Your task to perform on an android device: check data usage Image 0: 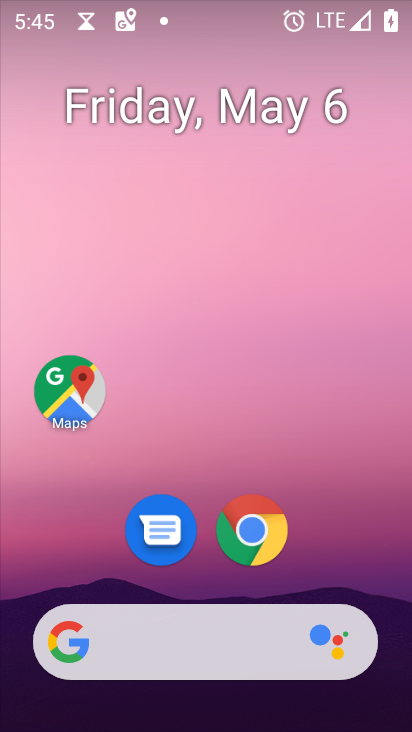
Step 0: drag from (309, 415) to (240, 82)
Your task to perform on an android device: check data usage Image 1: 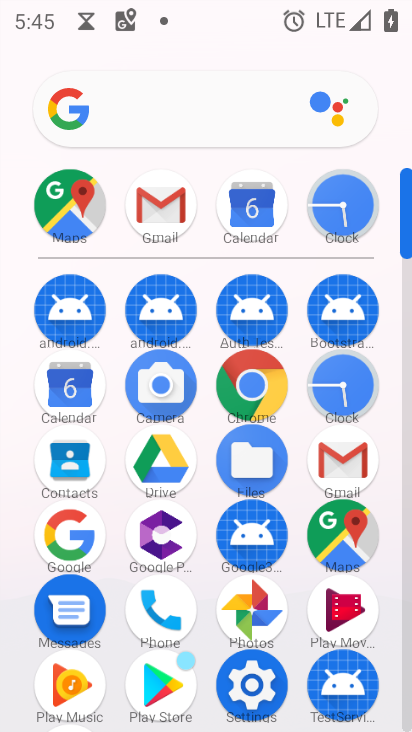
Step 1: click (251, 676)
Your task to perform on an android device: check data usage Image 2: 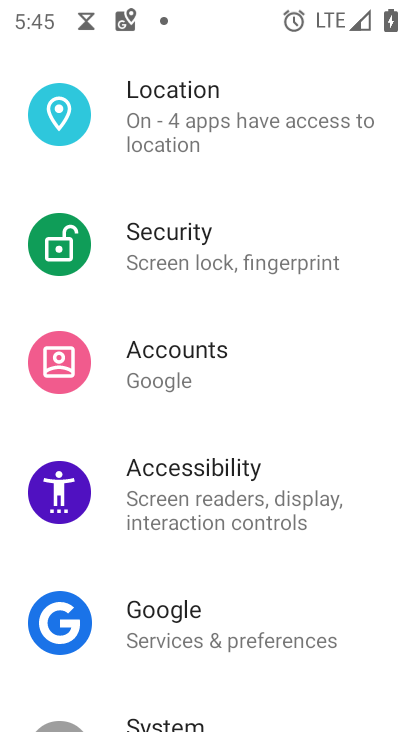
Step 2: drag from (275, 193) to (259, 724)
Your task to perform on an android device: check data usage Image 3: 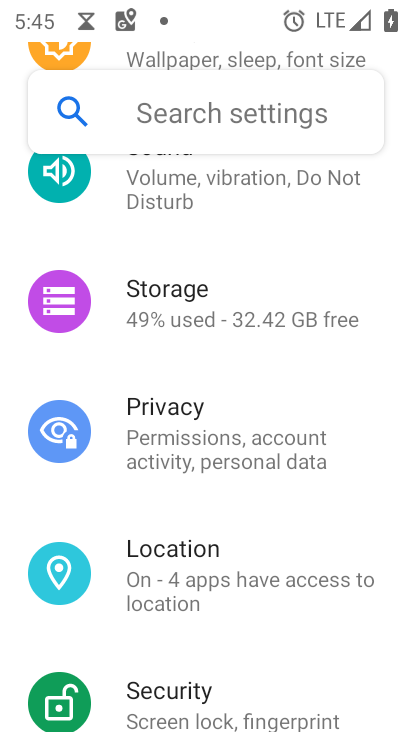
Step 3: drag from (252, 256) to (257, 711)
Your task to perform on an android device: check data usage Image 4: 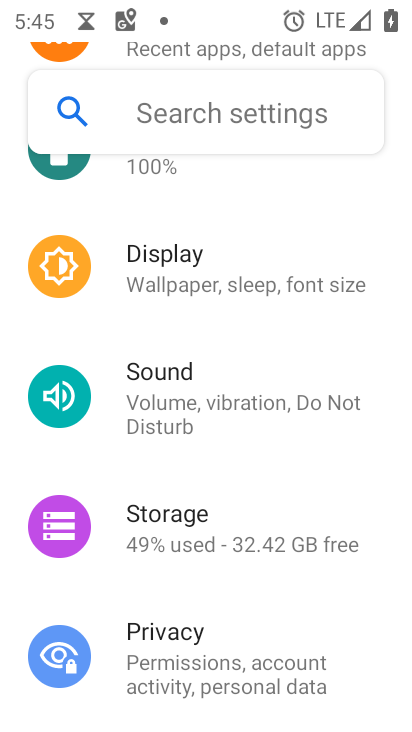
Step 4: drag from (235, 547) to (226, 707)
Your task to perform on an android device: check data usage Image 5: 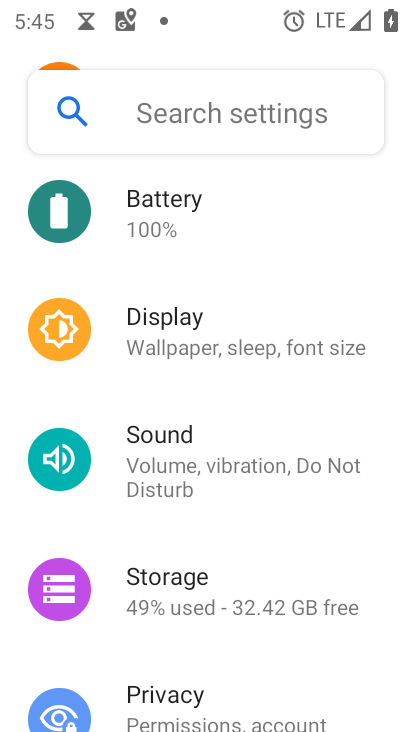
Step 5: drag from (254, 241) to (149, 718)
Your task to perform on an android device: check data usage Image 6: 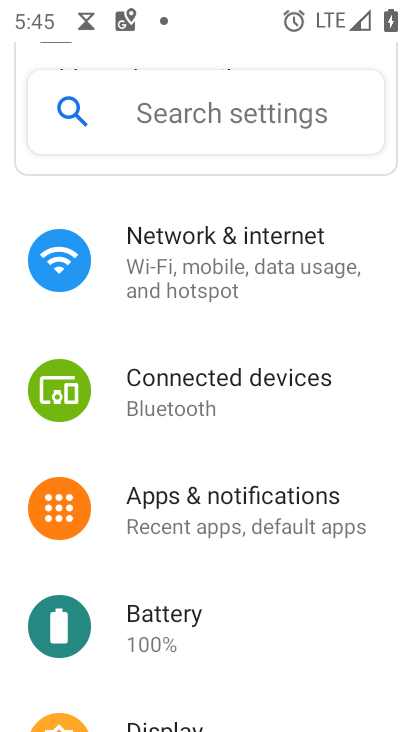
Step 6: click (192, 261)
Your task to perform on an android device: check data usage Image 7: 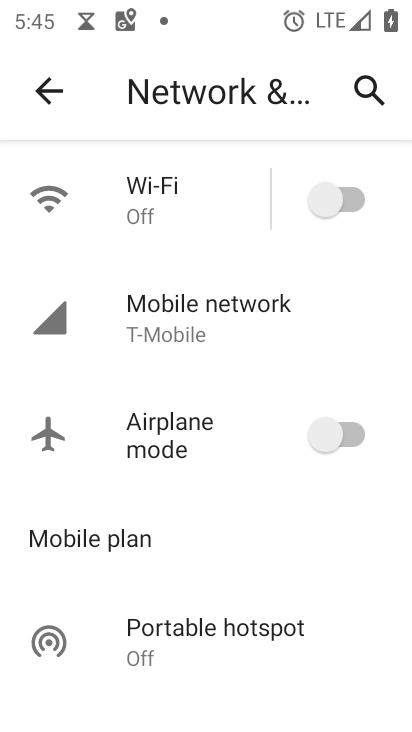
Step 7: click (218, 313)
Your task to perform on an android device: check data usage Image 8: 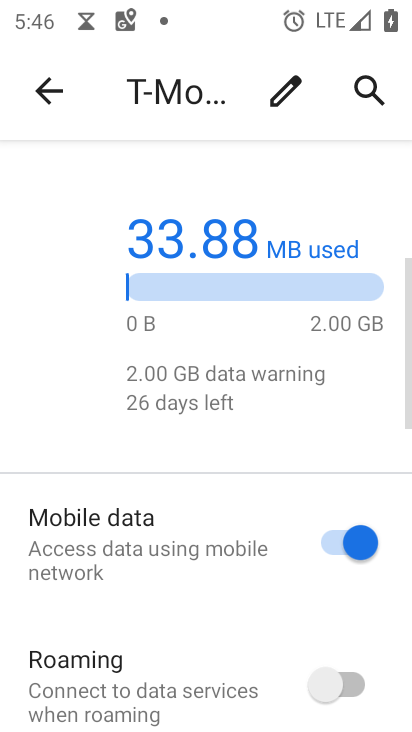
Step 8: task complete